Your task to perform on an android device: Open Google Maps Image 0: 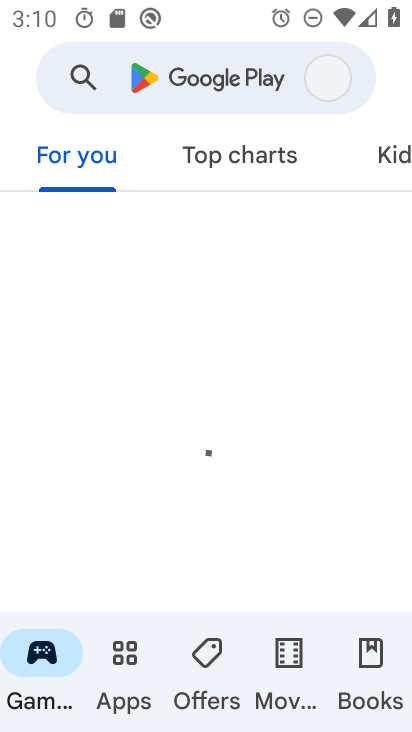
Step 0: press home button
Your task to perform on an android device: Open Google Maps Image 1: 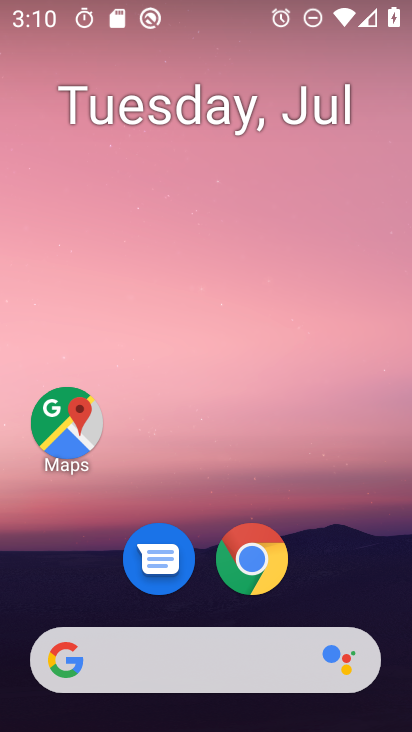
Step 1: drag from (372, 549) to (384, 99)
Your task to perform on an android device: Open Google Maps Image 2: 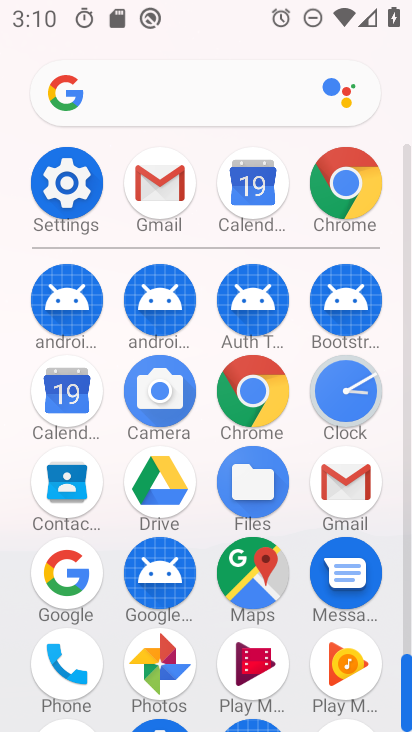
Step 2: click (260, 582)
Your task to perform on an android device: Open Google Maps Image 3: 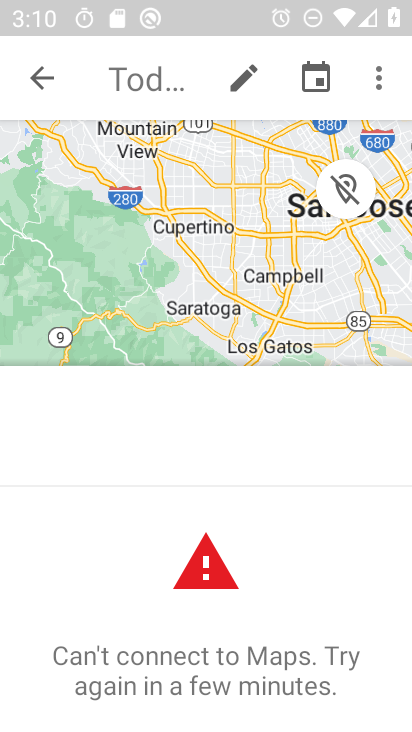
Step 3: task complete